Your task to perform on an android device: Go to Reddit.com Image 0: 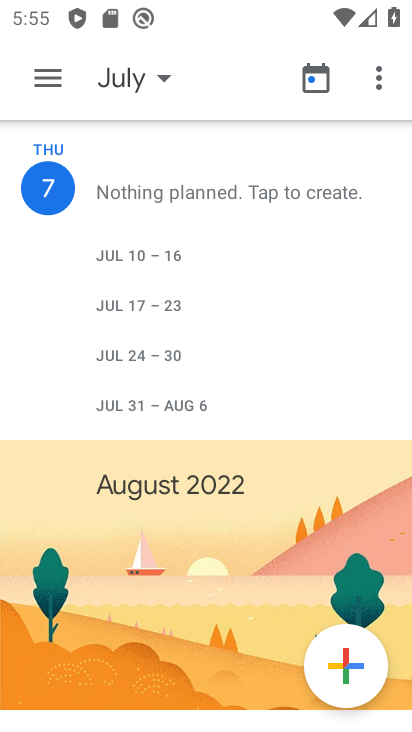
Step 0: press home button
Your task to perform on an android device: Go to Reddit.com Image 1: 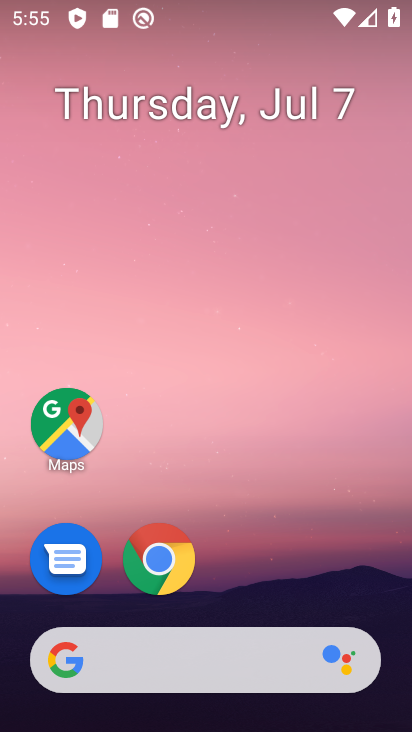
Step 1: drag from (323, 602) to (297, 124)
Your task to perform on an android device: Go to Reddit.com Image 2: 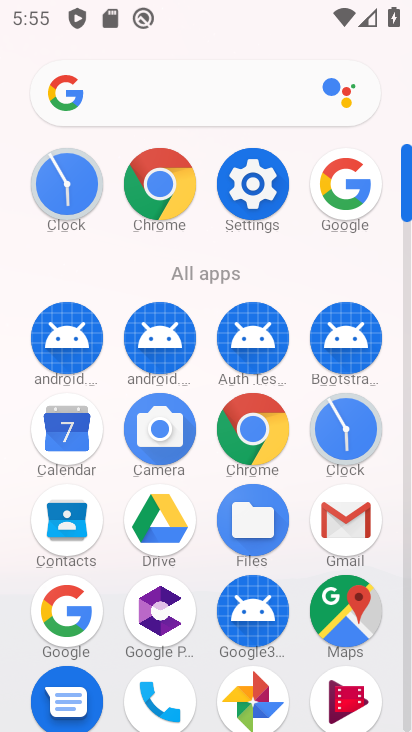
Step 2: click (263, 440)
Your task to perform on an android device: Go to Reddit.com Image 3: 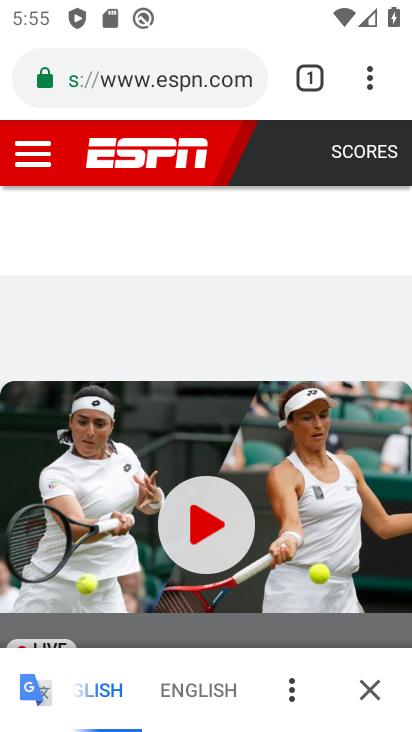
Step 3: click (249, 88)
Your task to perform on an android device: Go to Reddit.com Image 4: 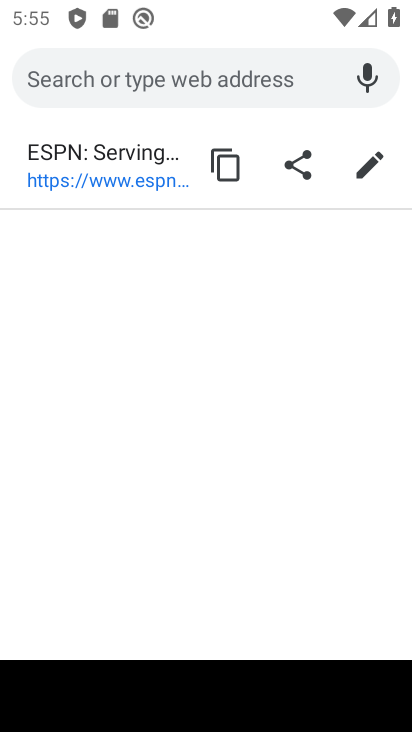
Step 4: type "reddit.com"
Your task to perform on an android device: Go to Reddit.com Image 5: 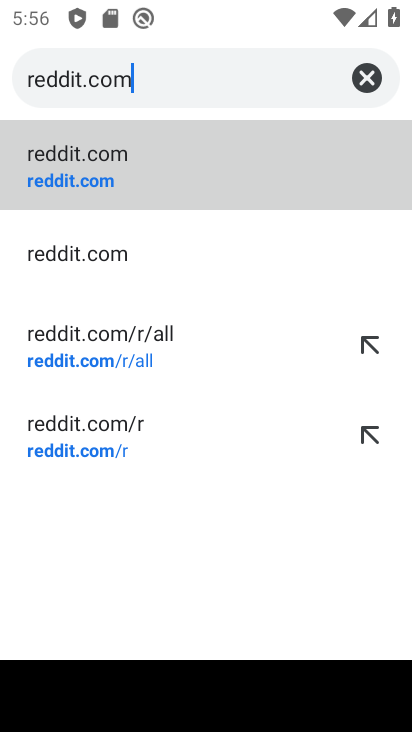
Step 5: click (172, 172)
Your task to perform on an android device: Go to Reddit.com Image 6: 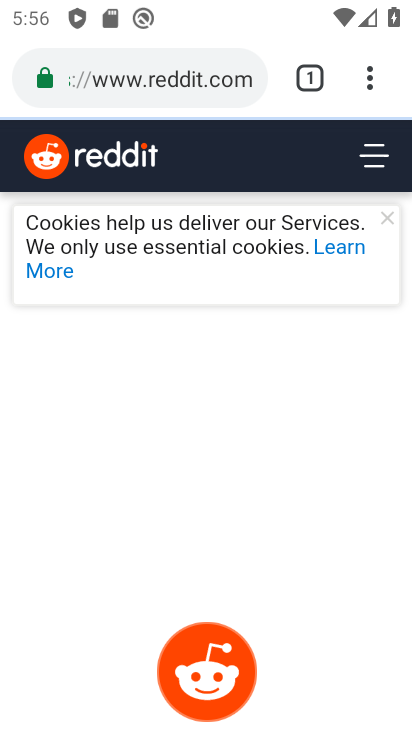
Step 6: task complete